Your task to perform on an android device: Search for "panasonic triple a" on walmart.com, select the first entry, and add it to the cart. Image 0: 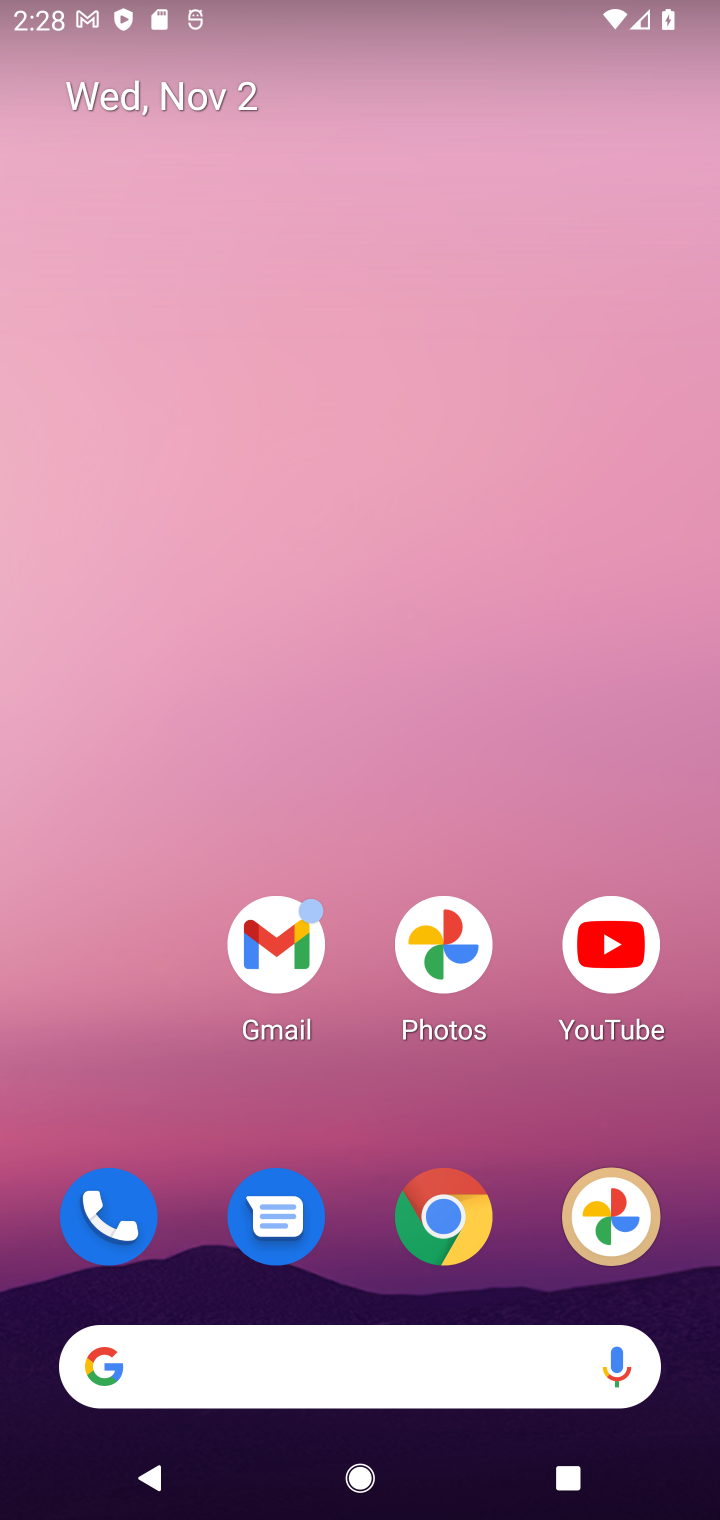
Step 0: click (417, 1218)
Your task to perform on an android device: Search for "panasonic triple a" on walmart.com, select the first entry, and add it to the cart. Image 1: 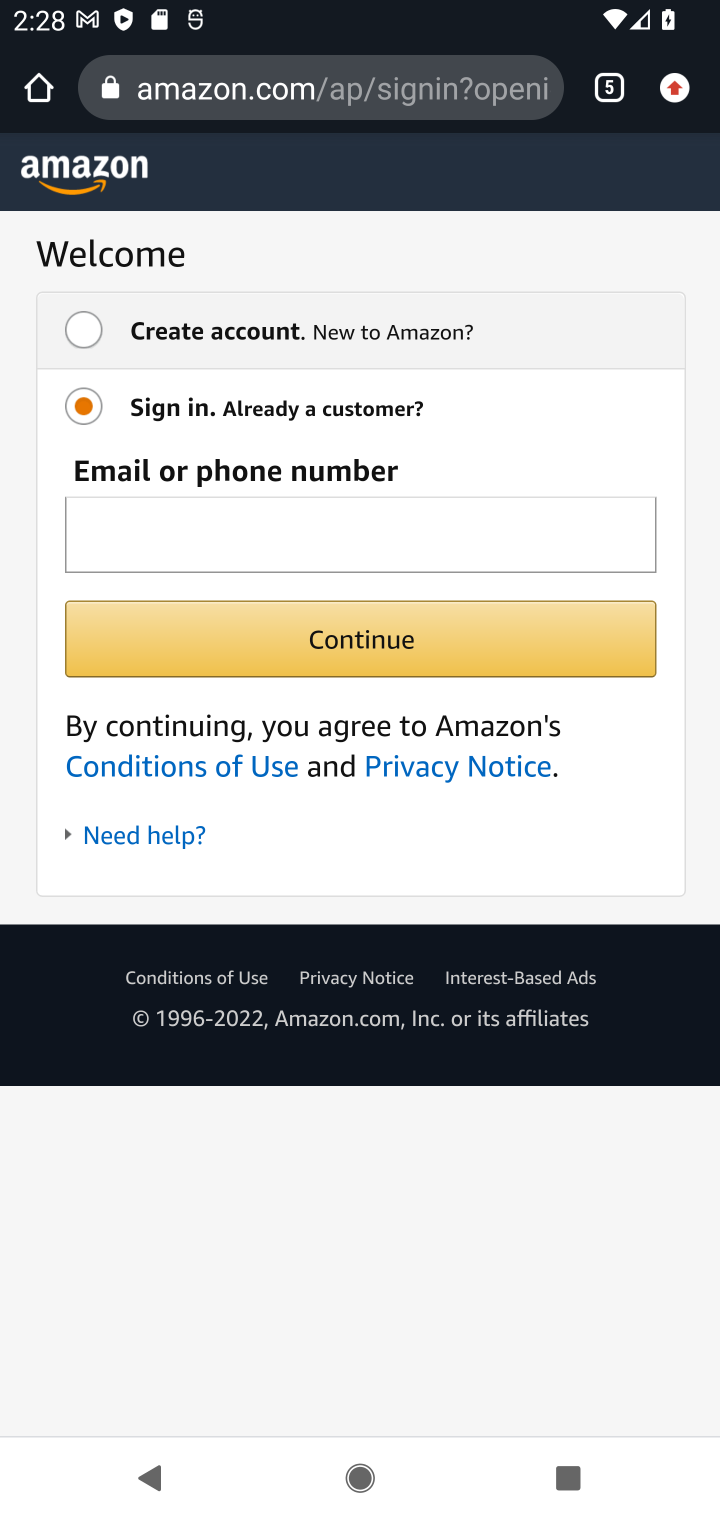
Step 1: click (605, 90)
Your task to perform on an android device: Search for "panasonic triple a" on walmart.com, select the first entry, and add it to the cart. Image 2: 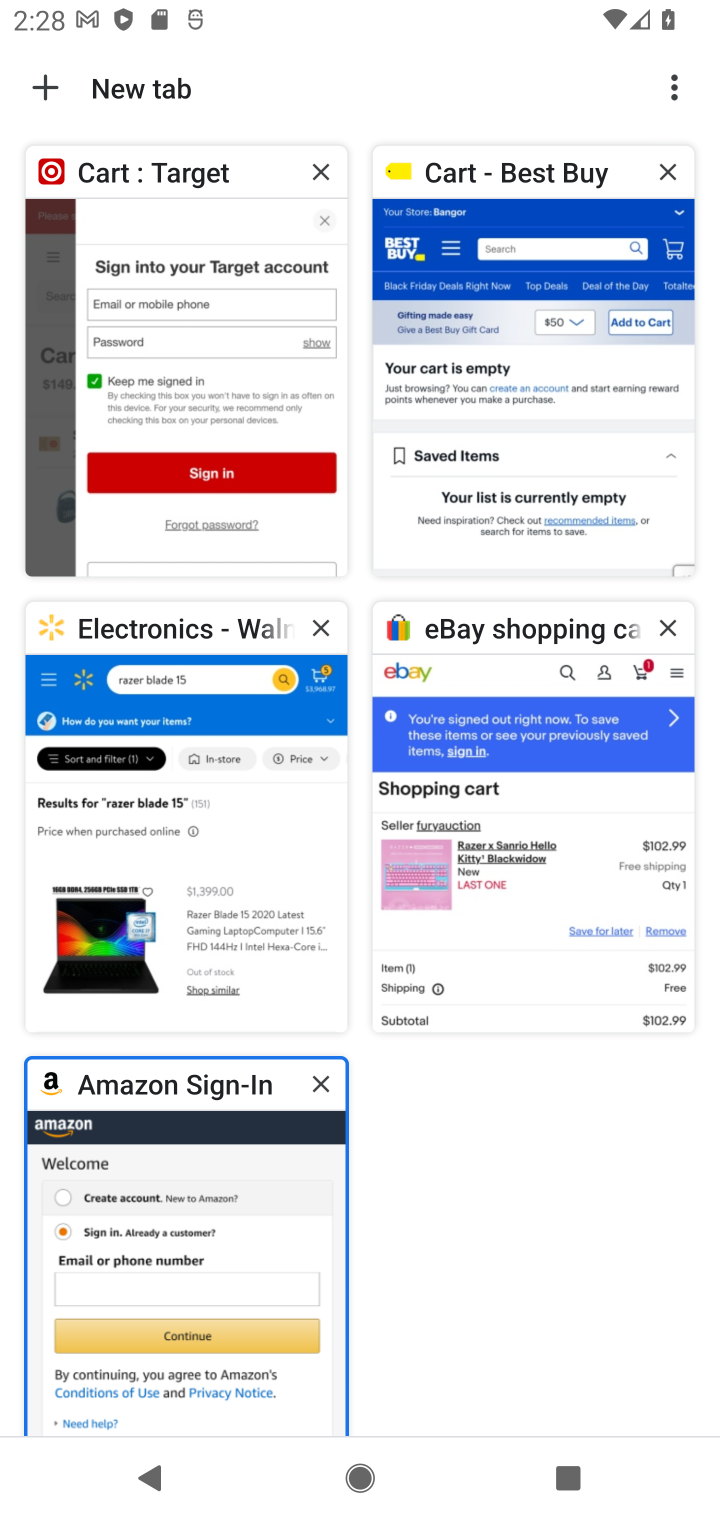
Step 2: click (200, 784)
Your task to perform on an android device: Search for "panasonic triple a" on walmart.com, select the first entry, and add it to the cart. Image 3: 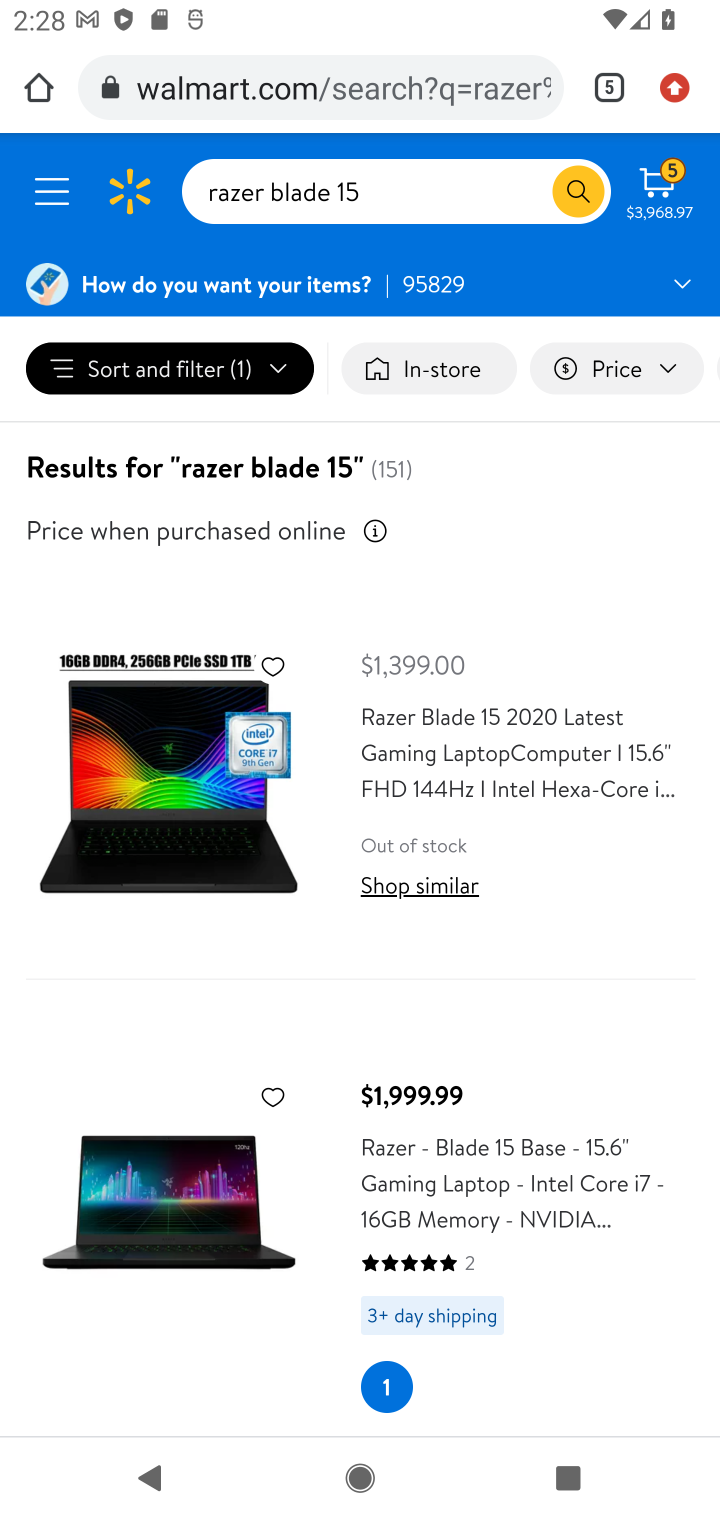
Step 3: click (377, 190)
Your task to perform on an android device: Search for "panasonic triple a" on walmart.com, select the first entry, and add it to the cart. Image 4: 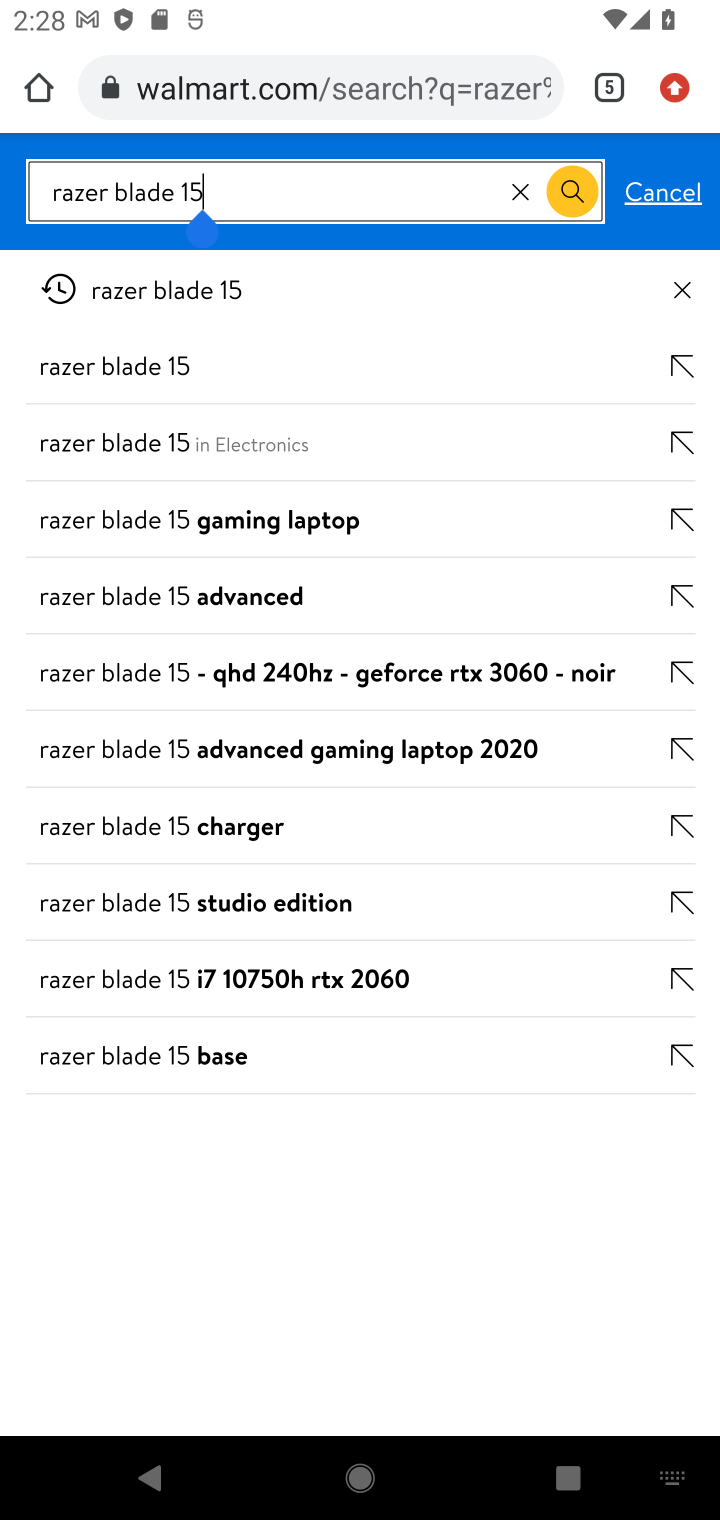
Step 4: click (516, 190)
Your task to perform on an android device: Search for "panasonic triple a" on walmart.com, select the first entry, and add it to the cart. Image 5: 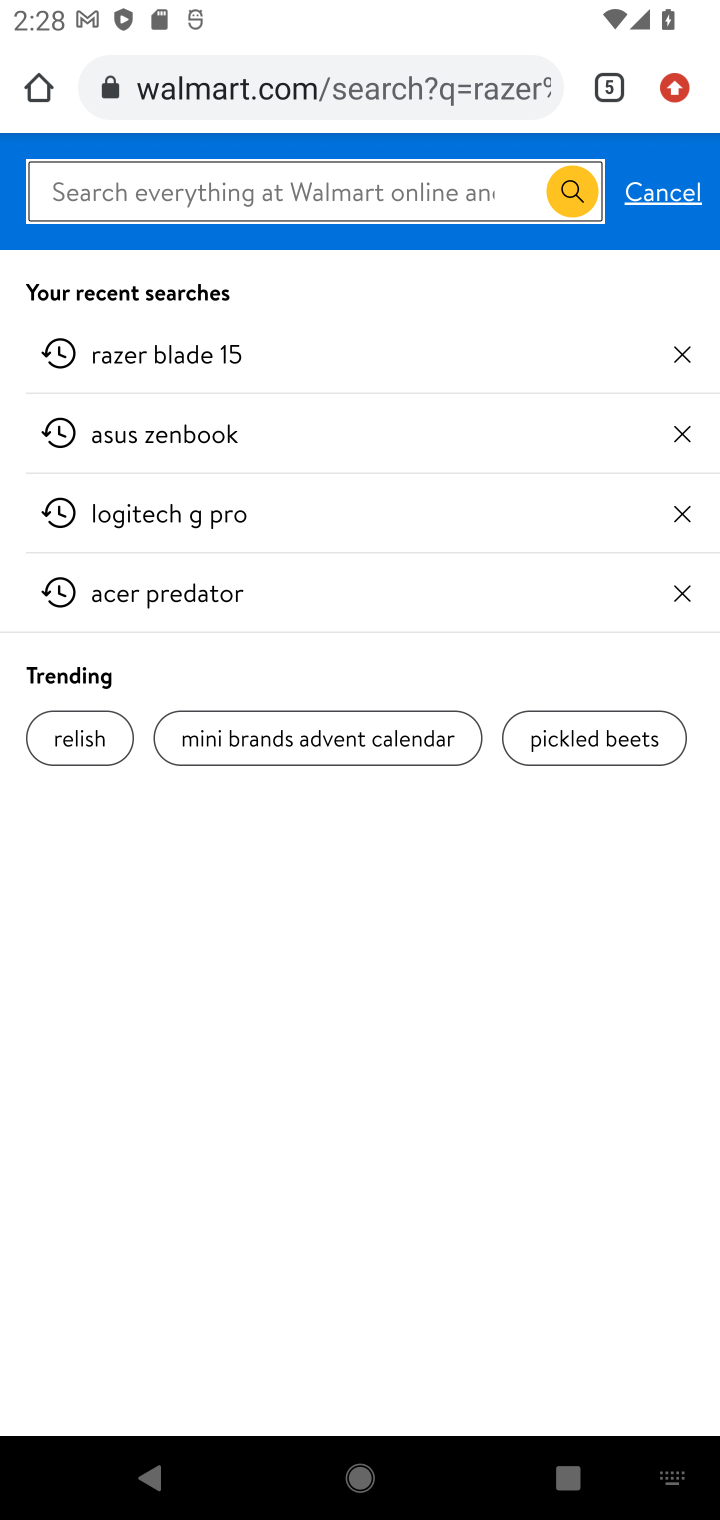
Step 5: type "panasonic triple a"
Your task to perform on an android device: Search for "panasonic triple a" on walmart.com, select the first entry, and add it to the cart. Image 6: 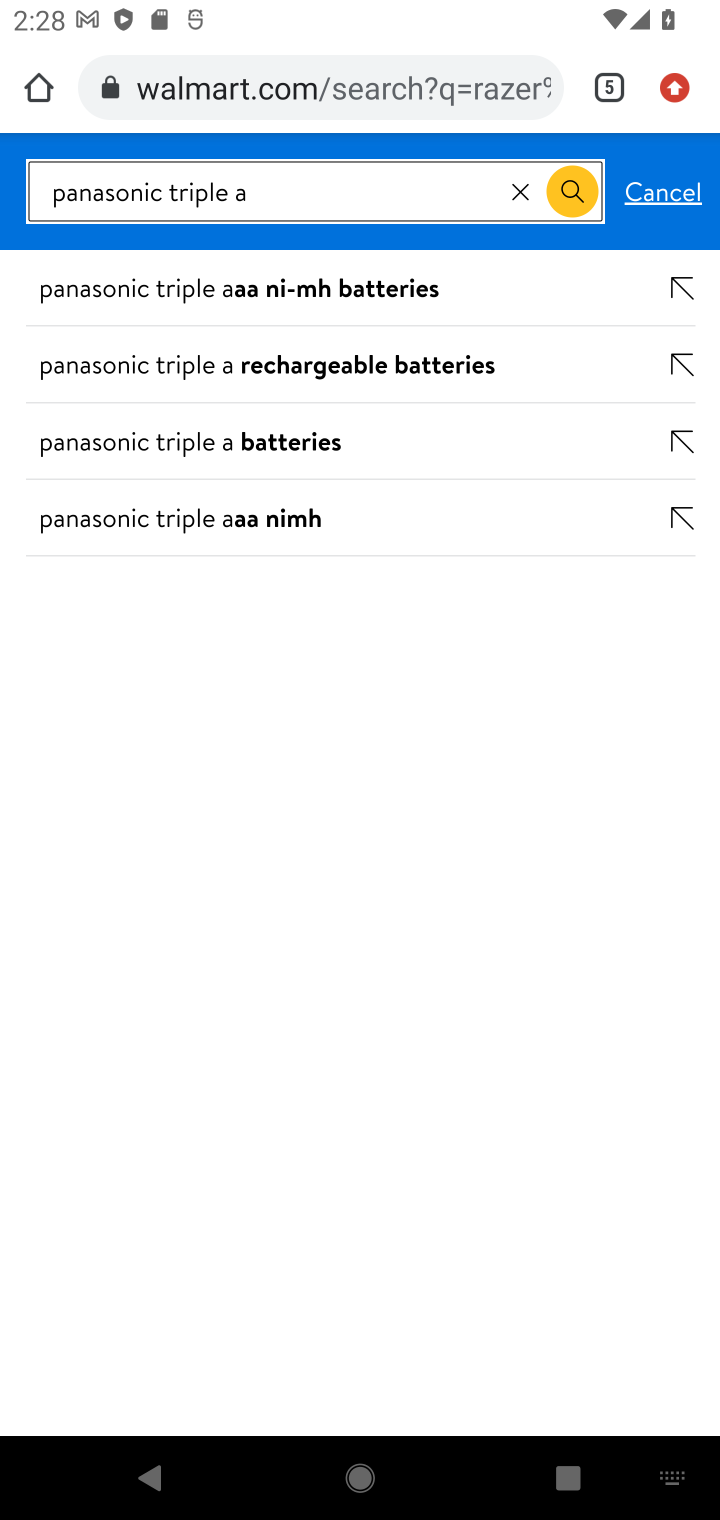
Step 6: click (261, 372)
Your task to perform on an android device: Search for "panasonic triple a" on walmart.com, select the first entry, and add it to the cart. Image 7: 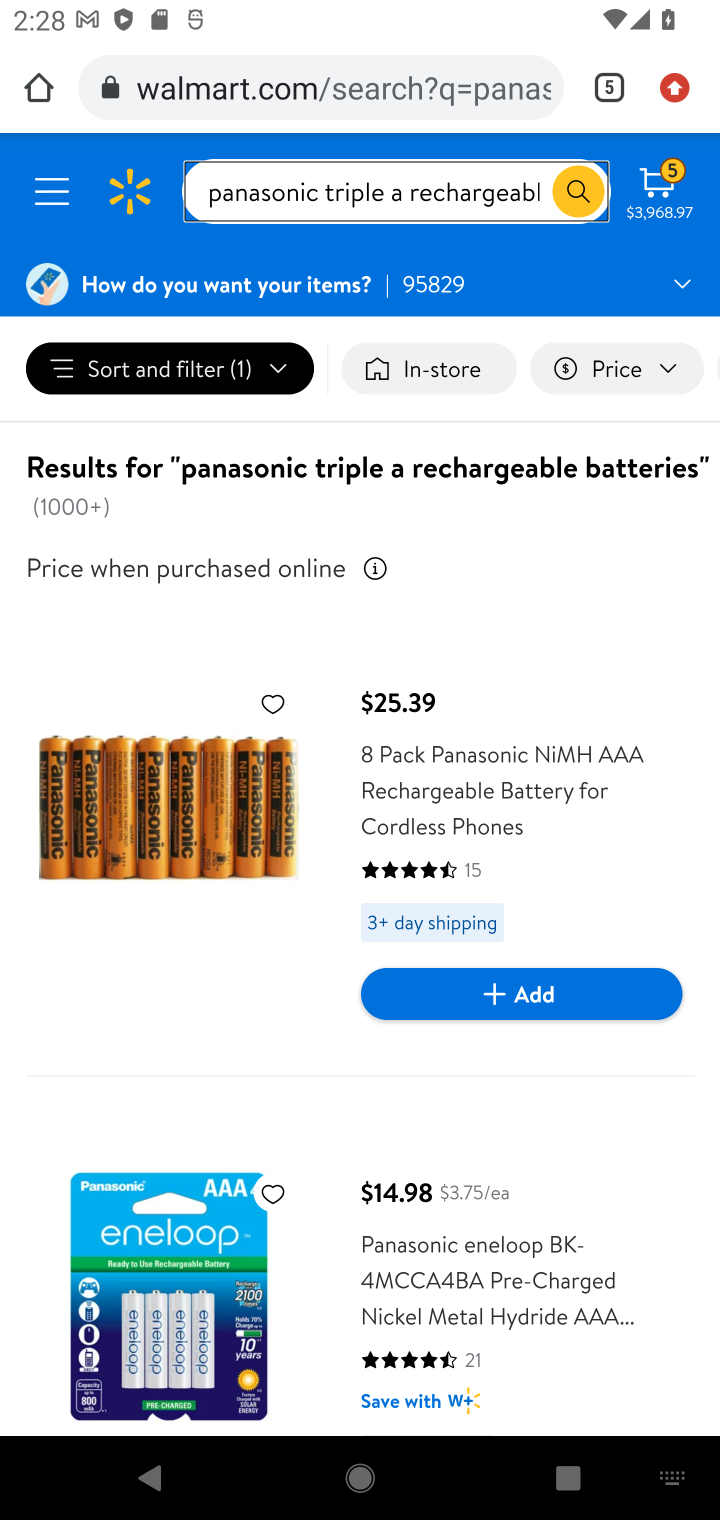
Step 7: click (540, 998)
Your task to perform on an android device: Search for "panasonic triple a" on walmart.com, select the first entry, and add it to the cart. Image 8: 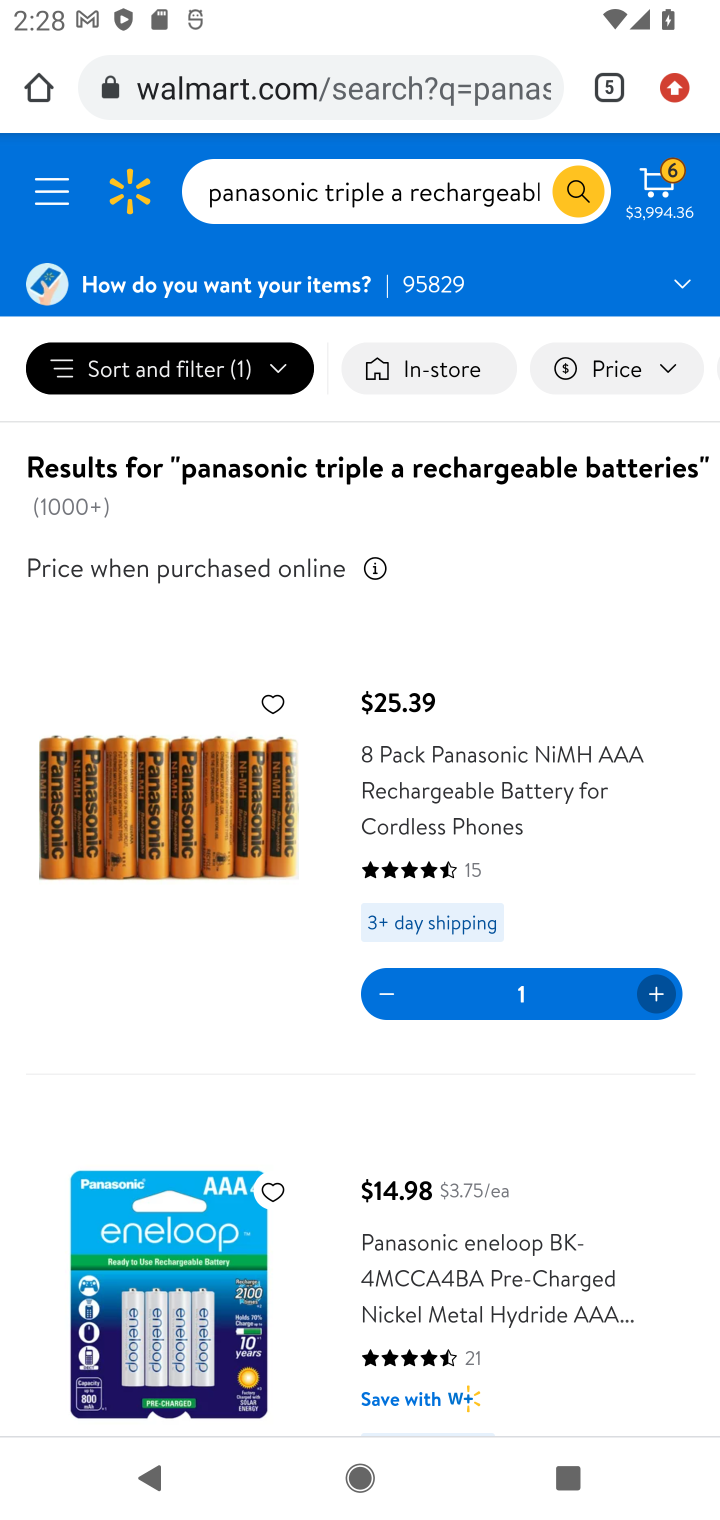
Step 8: task complete